Your task to perform on an android device: turn off location history Image 0: 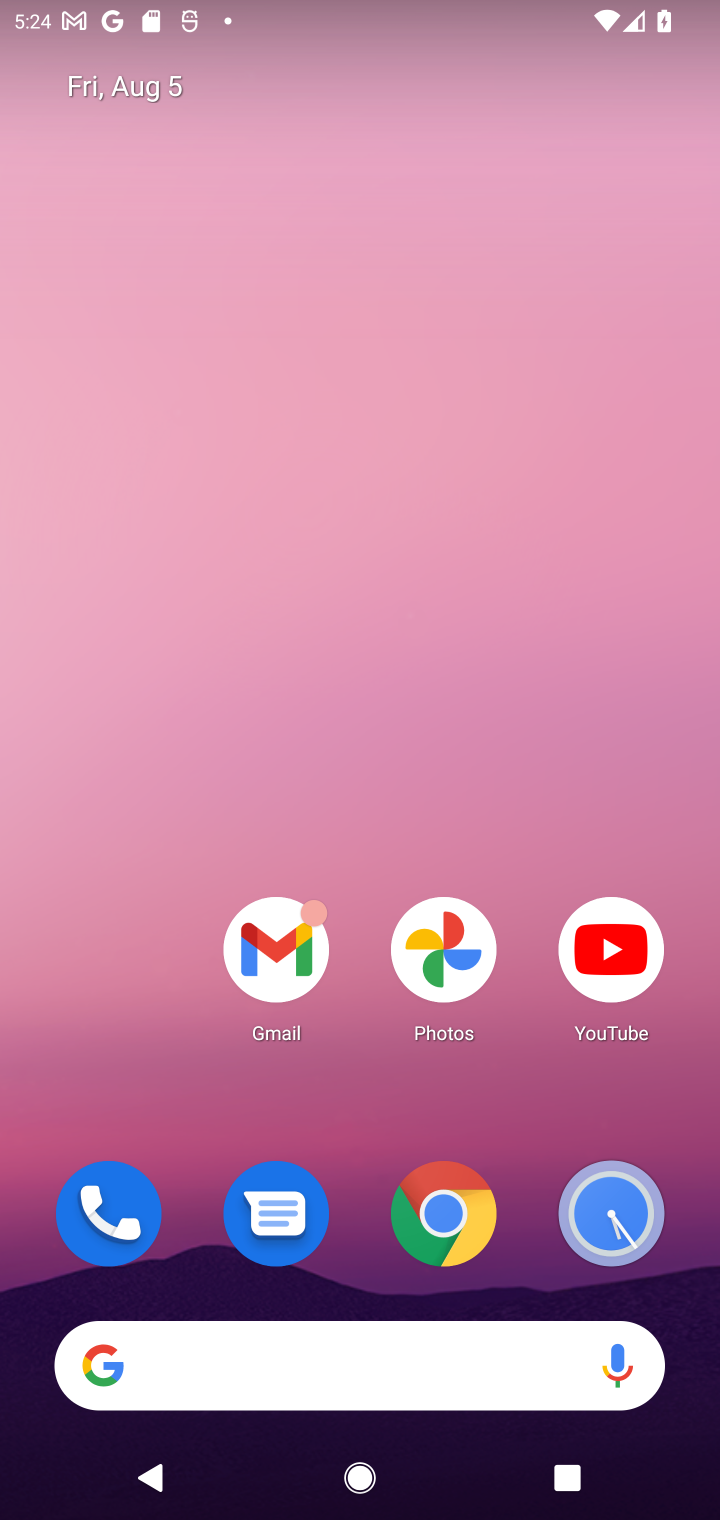
Step 0: drag from (381, 1292) to (397, 249)
Your task to perform on an android device: turn off location history Image 1: 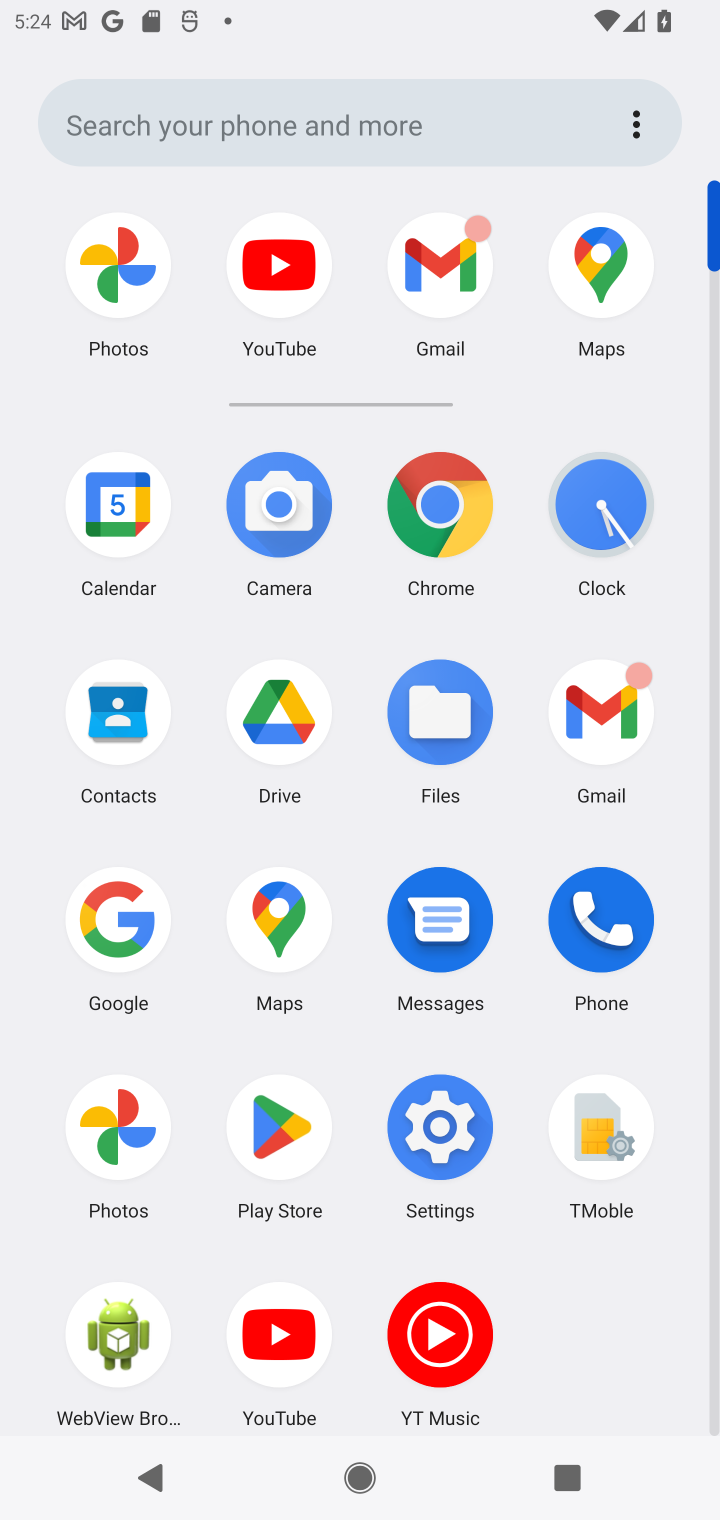
Step 1: click (450, 1162)
Your task to perform on an android device: turn off location history Image 2: 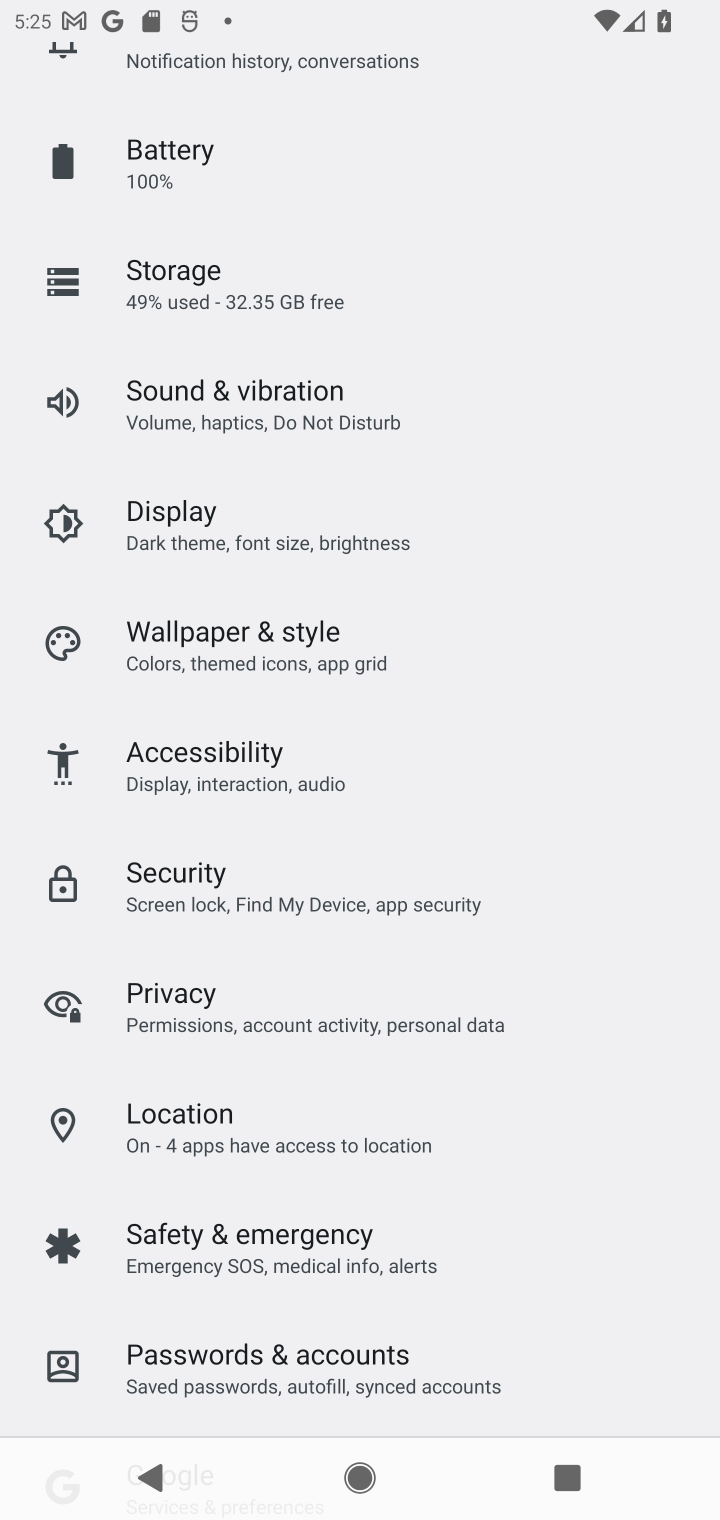
Step 2: click (238, 1121)
Your task to perform on an android device: turn off location history Image 3: 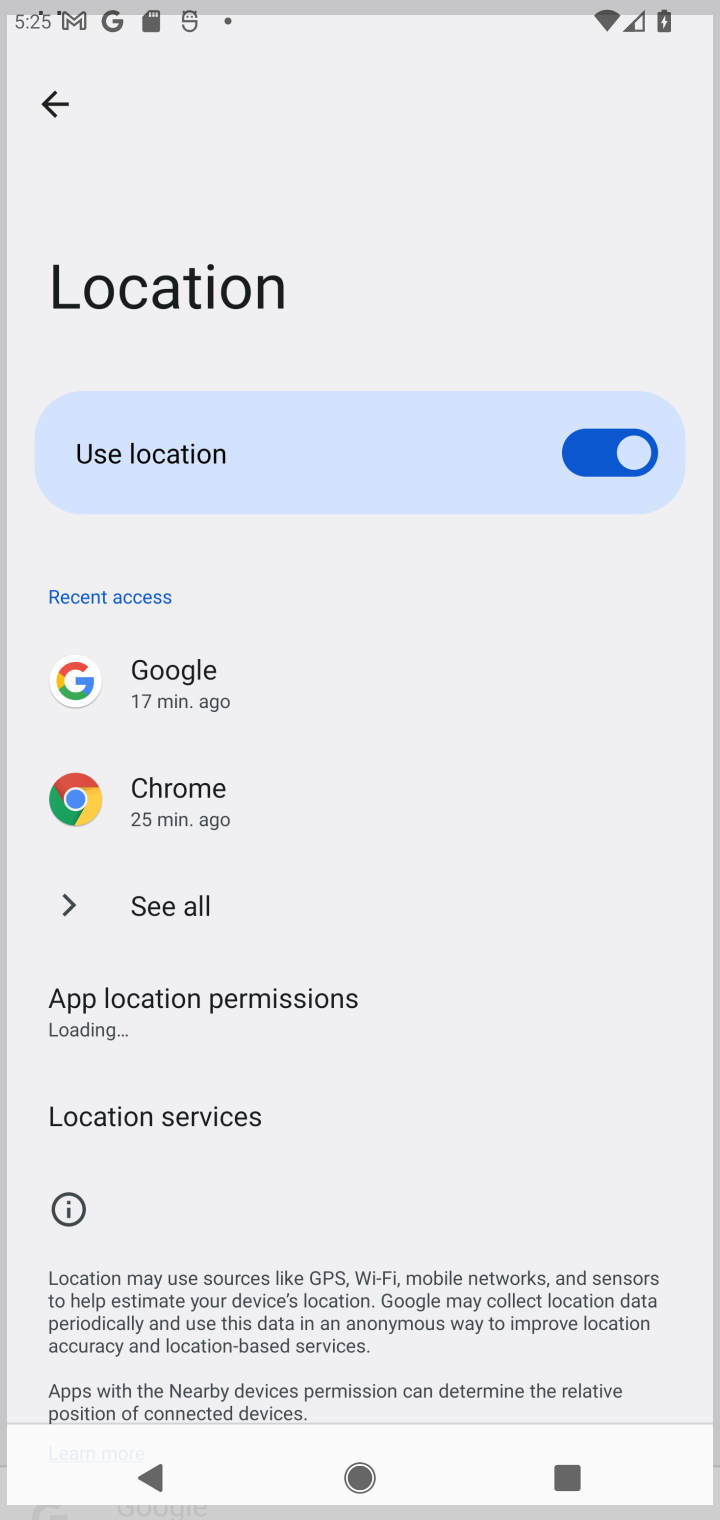
Step 3: task complete